Your task to perform on an android device: toggle show notifications on the lock screen Image 0: 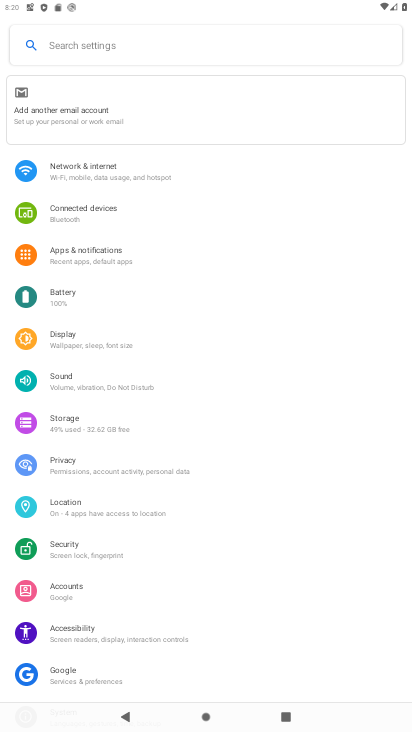
Step 0: click (116, 257)
Your task to perform on an android device: toggle show notifications on the lock screen Image 1: 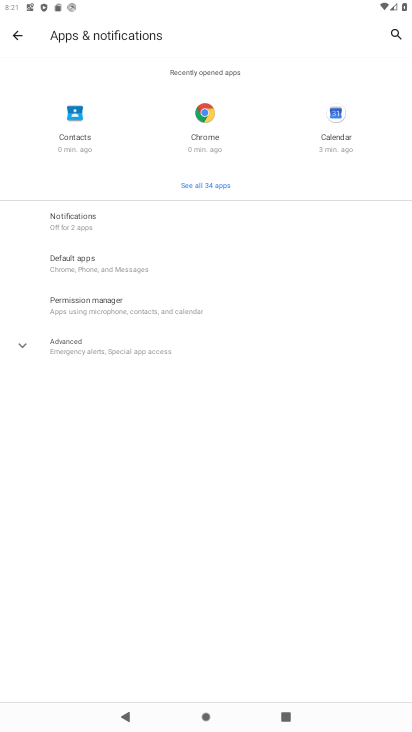
Step 1: click (115, 216)
Your task to perform on an android device: toggle show notifications on the lock screen Image 2: 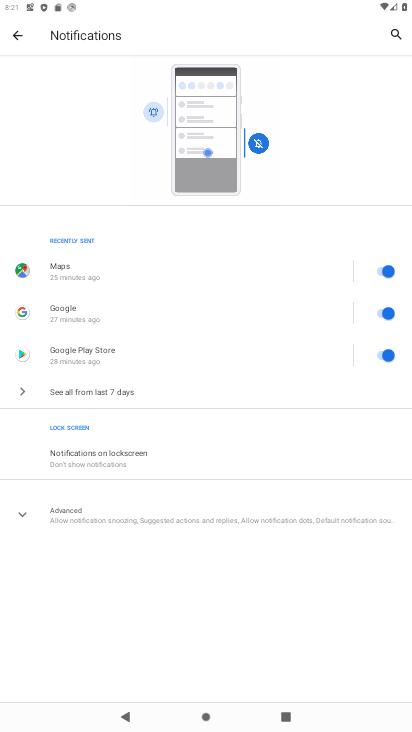
Step 2: click (124, 453)
Your task to perform on an android device: toggle show notifications on the lock screen Image 3: 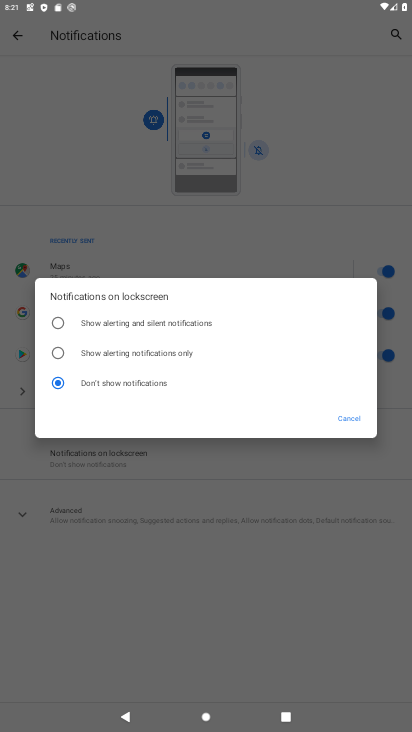
Step 3: click (134, 317)
Your task to perform on an android device: toggle show notifications on the lock screen Image 4: 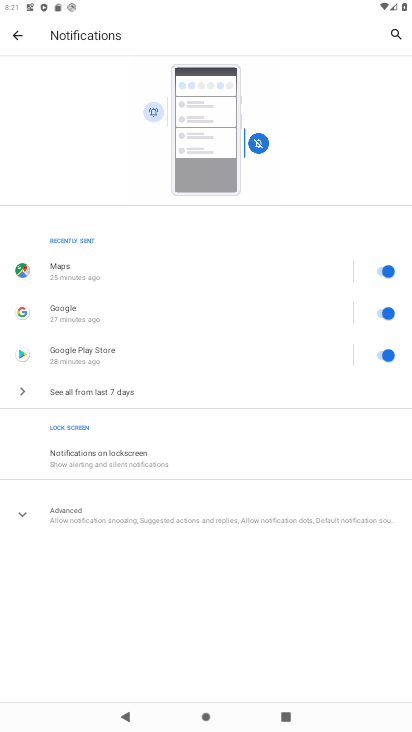
Step 4: task complete